Your task to perform on an android device: Open battery settings Image 0: 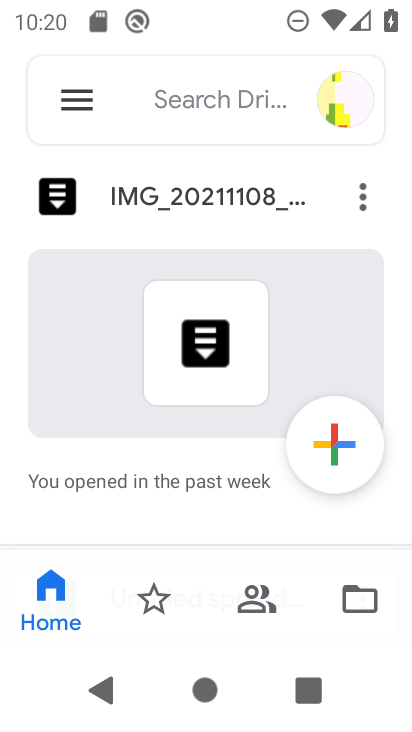
Step 0: drag from (248, 398) to (254, 239)
Your task to perform on an android device: Open battery settings Image 1: 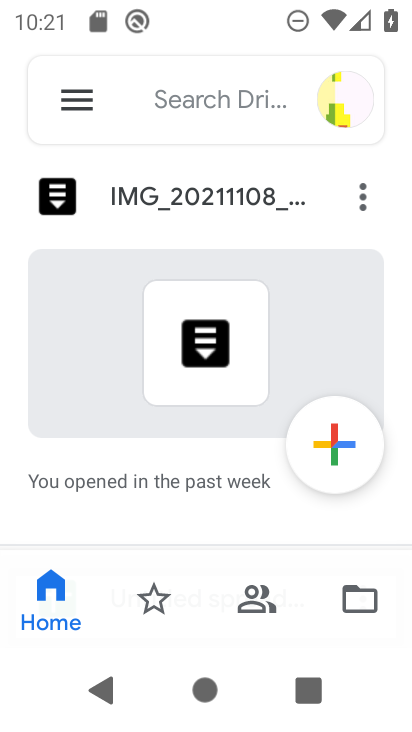
Step 1: drag from (228, 526) to (284, 195)
Your task to perform on an android device: Open battery settings Image 2: 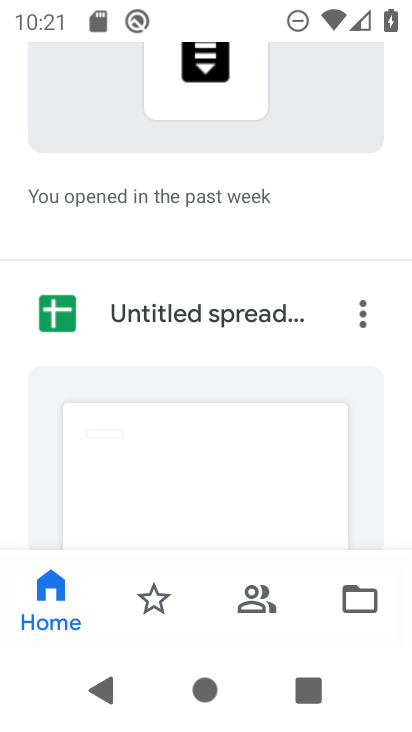
Step 2: press home button
Your task to perform on an android device: Open battery settings Image 3: 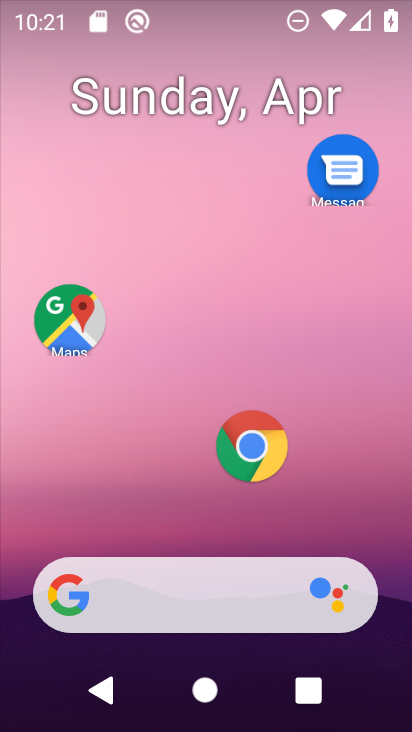
Step 3: drag from (213, 476) to (193, 6)
Your task to perform on an android device: Open battery settings Image 4: 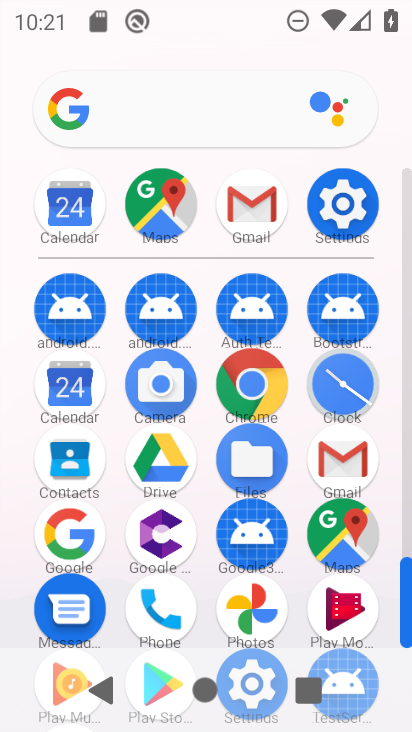
Step 4: click (343, 195)
Your task to perform on an android device: Open battery settings Image 5: 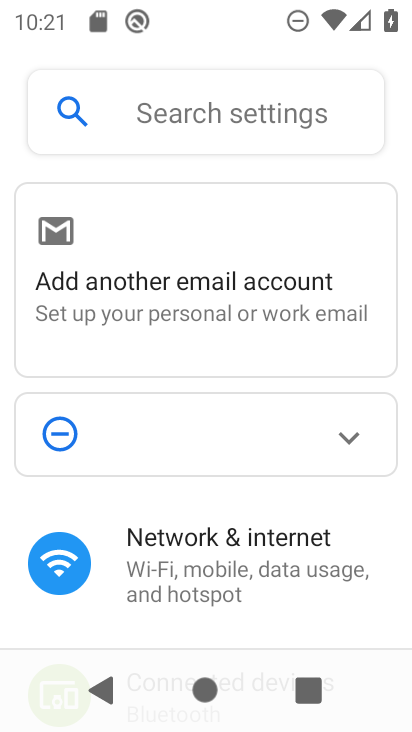
Step 5: drag from (245, 502) to (291, 201)
Your task to perform on an android device: Open battery settings Image 6: 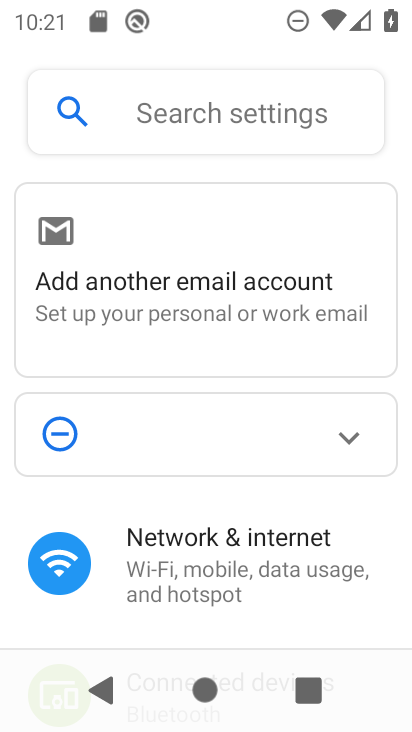
Step 6: drag from (183, 578) to (263, 156)
Your task to perform on an android device: Open battery settings Image 7: 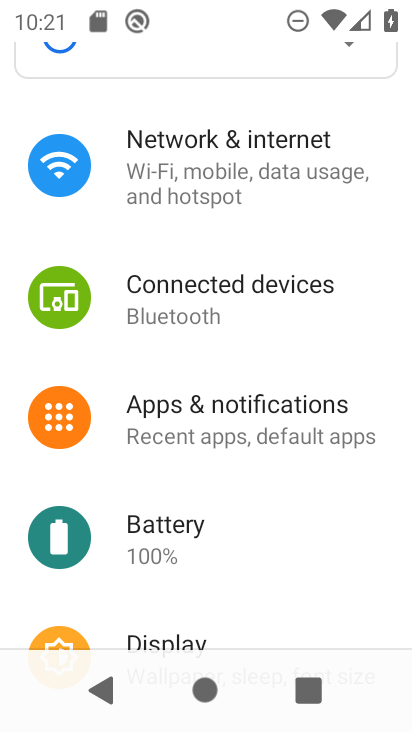
Step 7: drag from (189, 577) to (270, 141)
Your task to perform on an android device: Open battery settings Image 8: 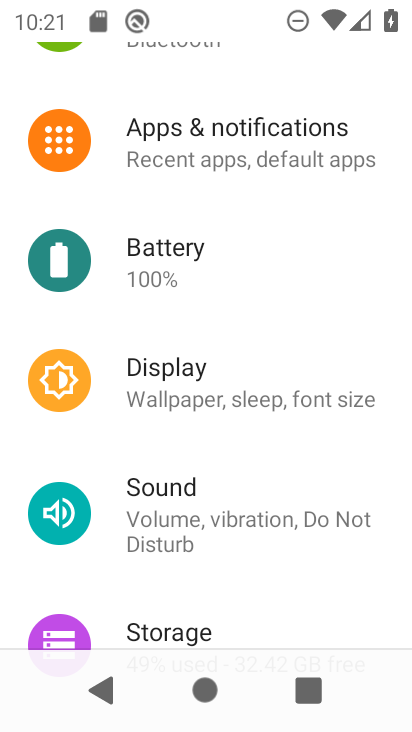
Step 8: click (186, 369)
Your task to perform on an android device: Open battery settings Image 9: 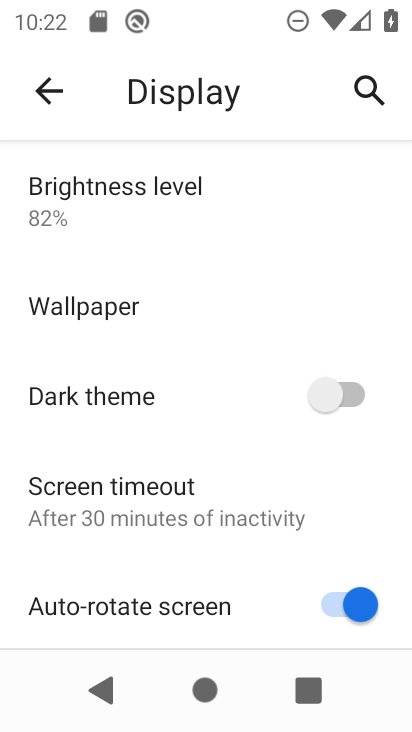
Step 9: drag from (200, 491) to (266, 257)
Your task to perform on an android device: Open battery settings Image 10: 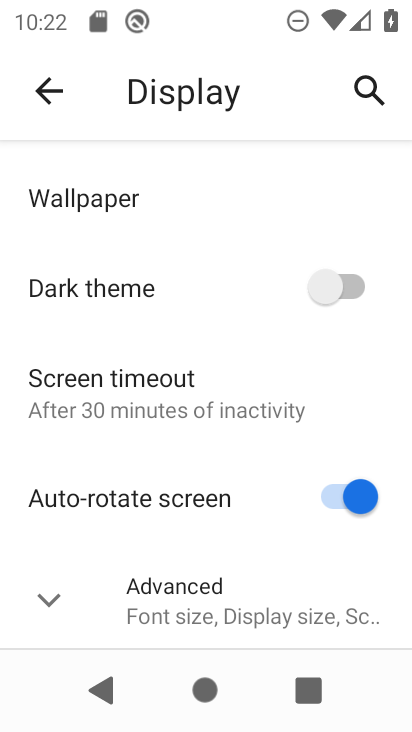
Step 10: click (32, 90)
Your task to perform on an android device: Open battery settings Image 11: 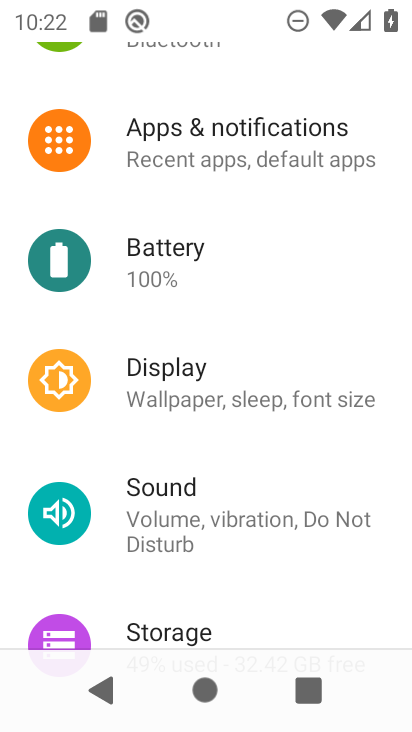
Step 11: click (191, 262)
Your task to perform on an android device: Open battery settings Image 12: 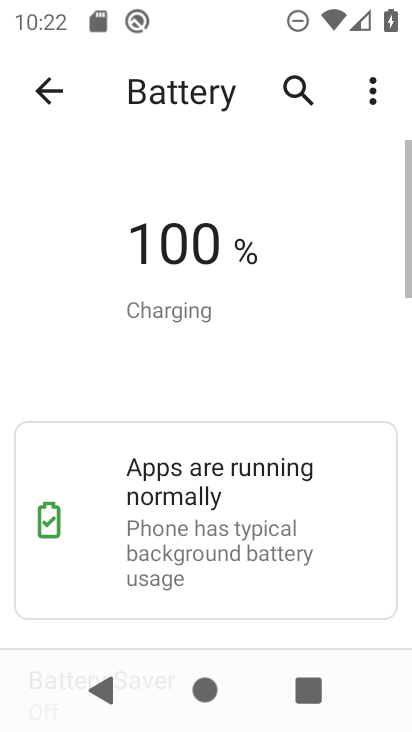
Step 12: task complete